Your task to perform on an android device: turn on airplane mode Image 0: 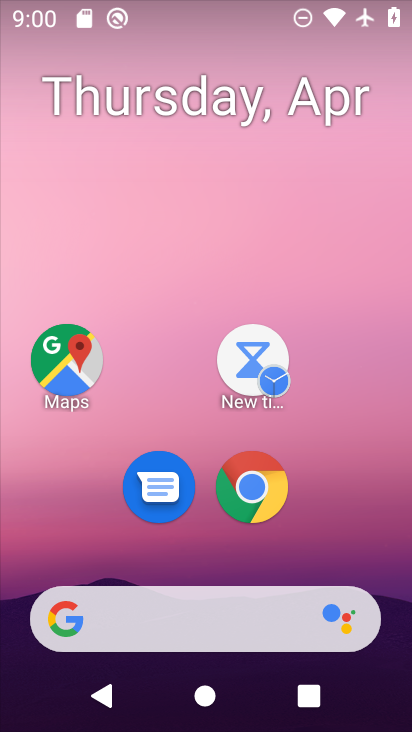
Step 0: drag from (327, 450) to (333, 175)
Your task to perform on an android device: turn on airplane mode Image 1: 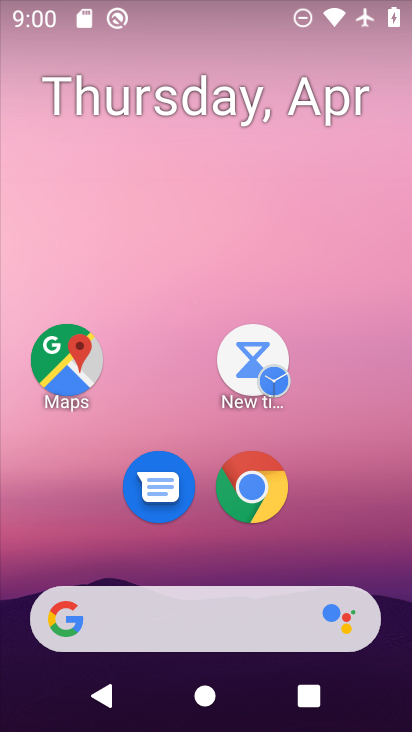
Step 1: drag from (339, 412) to (314, 62)
Your task to perform on an android device: turn on airplane mode Image 2: 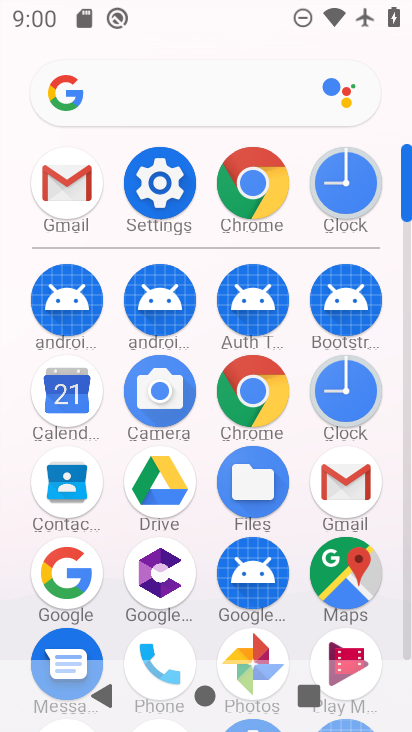
Step 2: click (158, 193)
Your task to perform on an android device: turn on airplane mode Image 3: 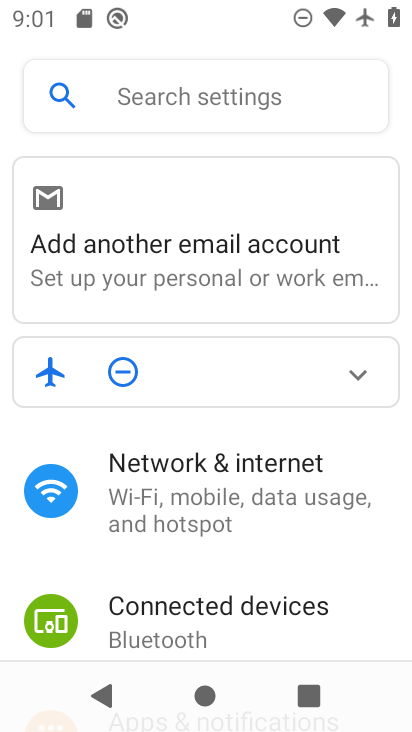
Step 3: drag from (187, 580) to (187, 356)
Your task to perform on an android device: turn on airplane mode Image 4: 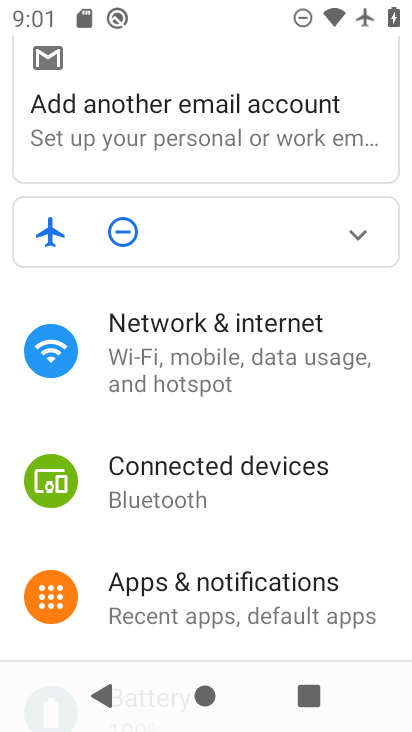
Step 4: click (178, 385)
Your task to perform on an android device: turn on airplane mode Image 5: 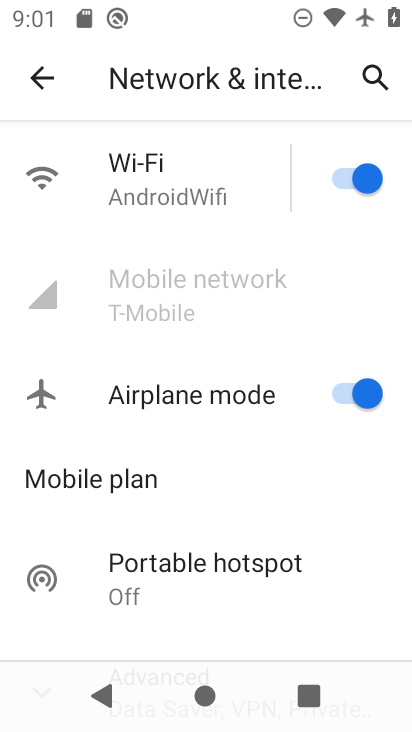
Step 5: task complete